Your task to perform on an android device: check out phone information Image 0: 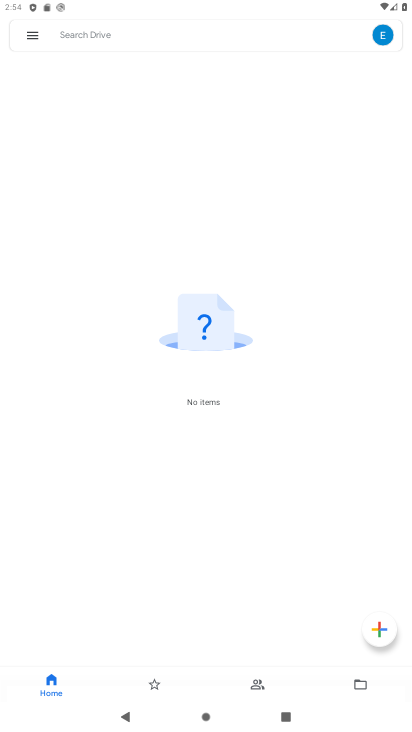
Step 0: press home button
Your task to perform on an android device: check out phone information Image 1: 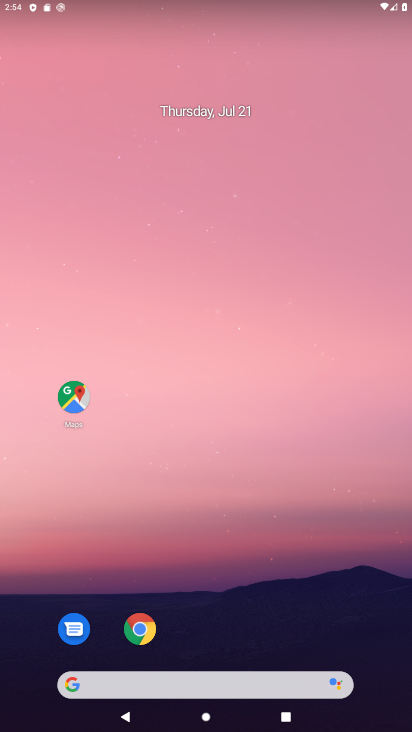
Step 1: drag from (227, 585) to (242, 3)
Your task to perform on an android device: check out phone information Image 2: 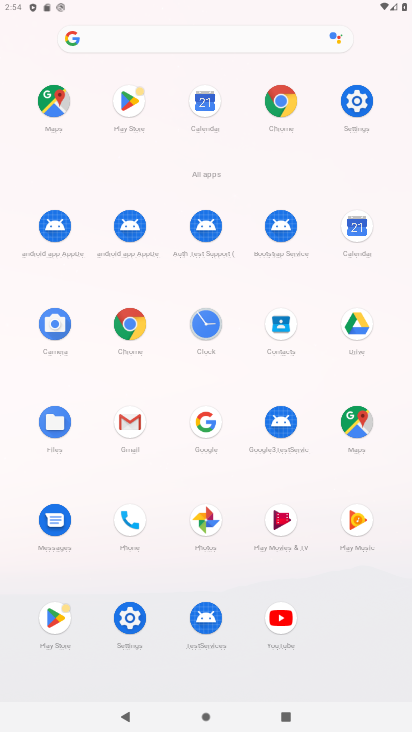
Step 2: click (132, 615)
Your task to perform on an android device: check out phone information Image 3: 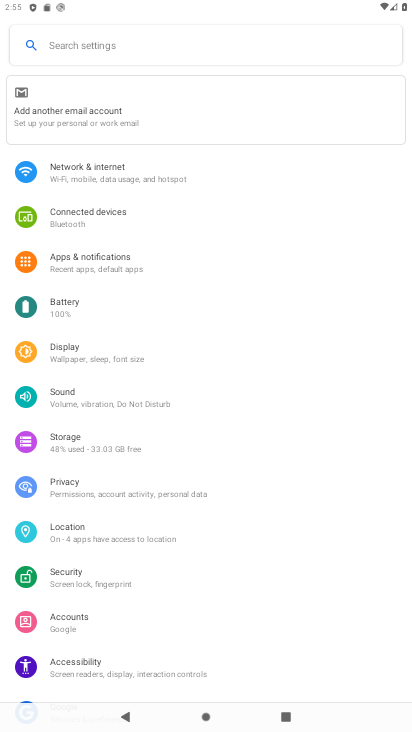
Step 3: drag from (116, 124) to (125, 89)
Your task to perform on an android device: check out phone information Image 4: 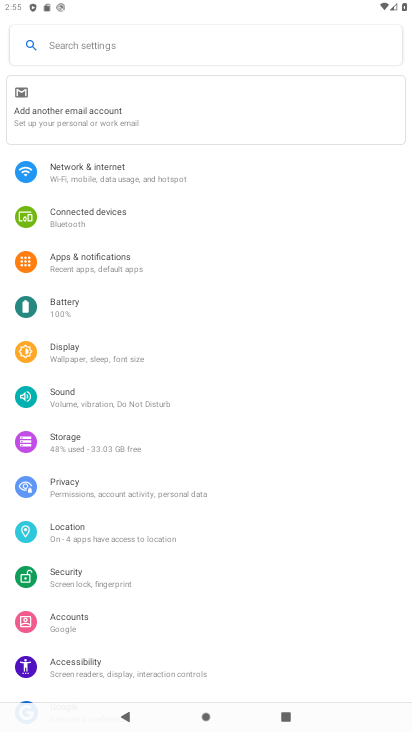
Step 4: drag from (123, 672) to (123, 294)
Your task to perform on an android device: check out phone information Image 5: 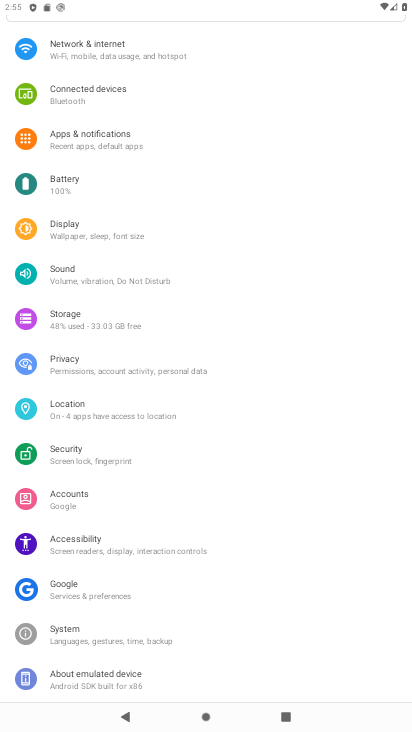
Step 5: drag from (145, 664) to (147, 462)
Your task to perform on an android device: check out phone information Image 6: 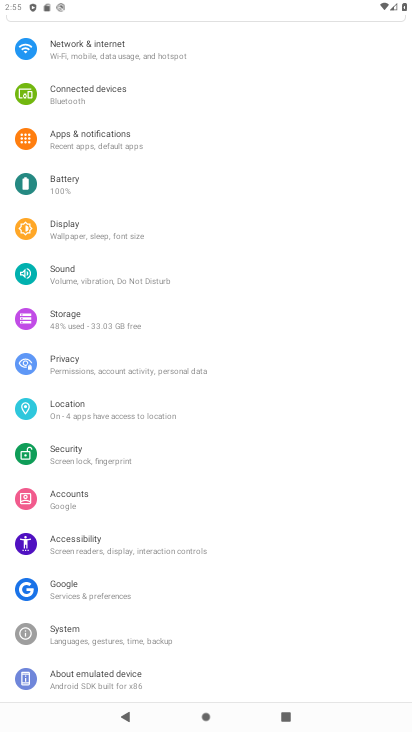
Step 6: click (91, 681)
Your task to perform on an android device: check out phone information Image 7: 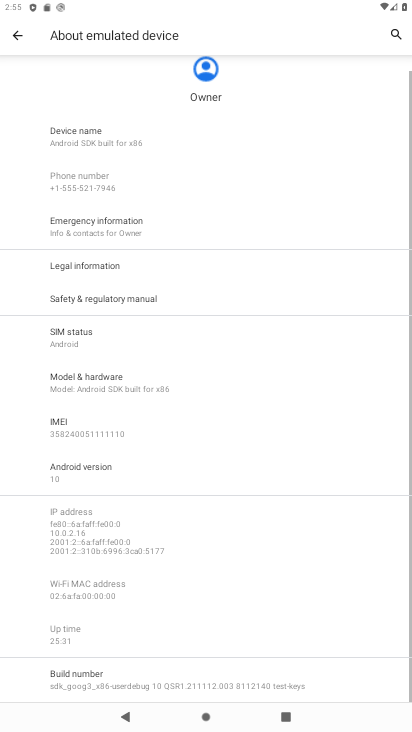
Step 7: task complete